Your task to perform on an android device: open sync settings in chrome Image 0: 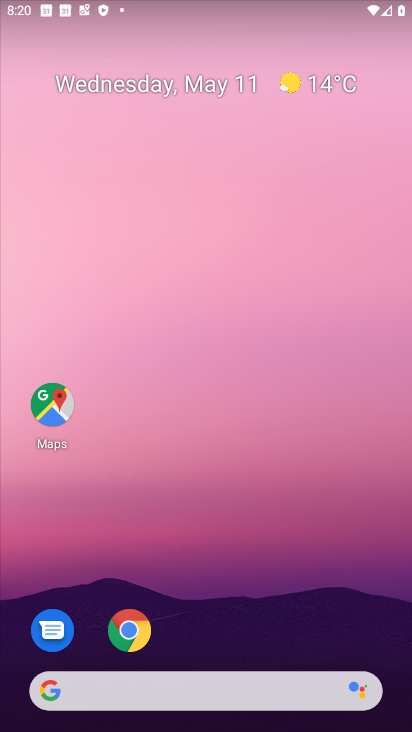
Step 0: click (119, 631)
Your task to perform on an android device: open sync settings in chrome Image 1: 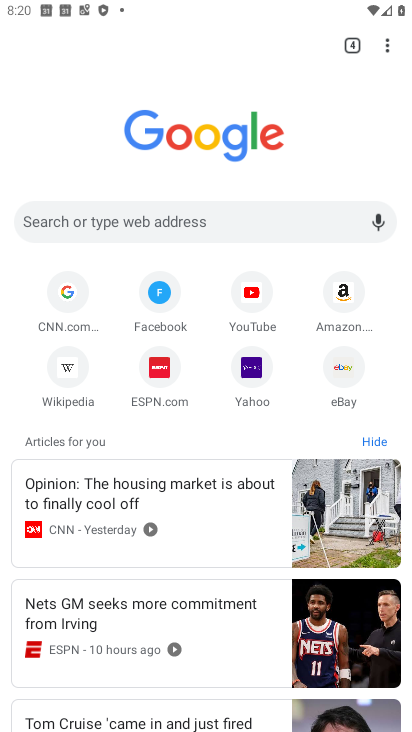
Step 1: click (249, 315)
Your task to perform on an android device: open sync settings in chrome Image 2: 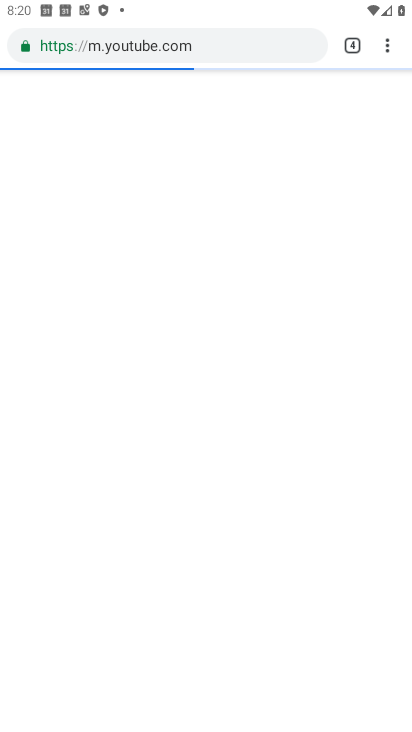
Step 2: click (383, 40)
Your task to perform on an android device: open sync settings in chrome Image 3: 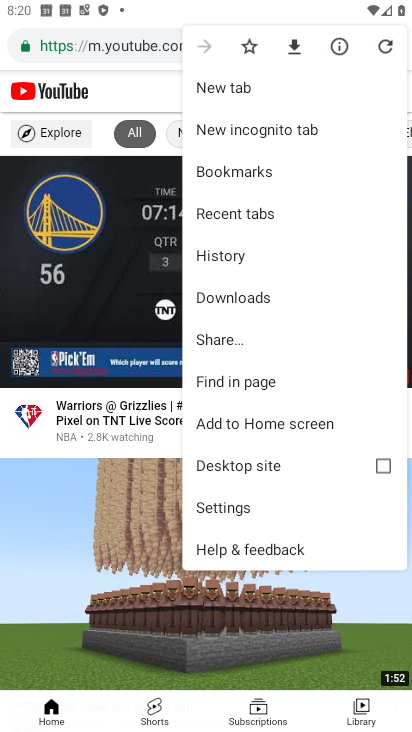
Step 3: click (221, 504)
Your task to perform on an android device: open sync settings in chrome Image 4: 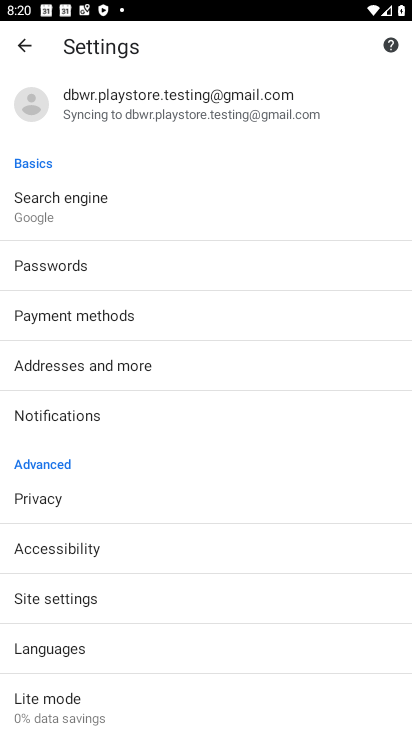
Step 4: click (125, 122)
Your task to perform on an android device: open sync settings in chrome Image 5: 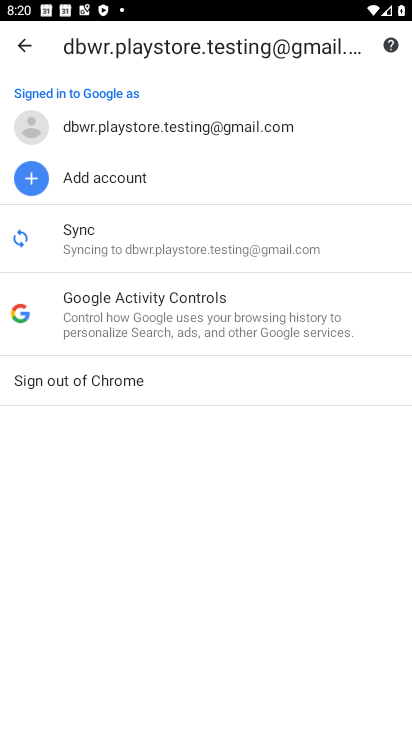
Step 5: click (140, 128)
Your task to perform on an android device: open sync settings in chrome Image 6: 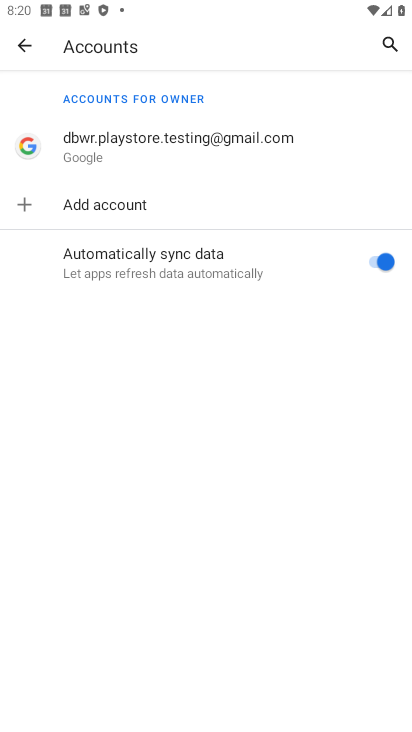
Step 6: task complete